Your task to perform on an android device: open app "ZOOM Cloud Meetings" (install if not already installed) and enter user name: "bauxite@icloud.com" and password: "dim" Image 0: 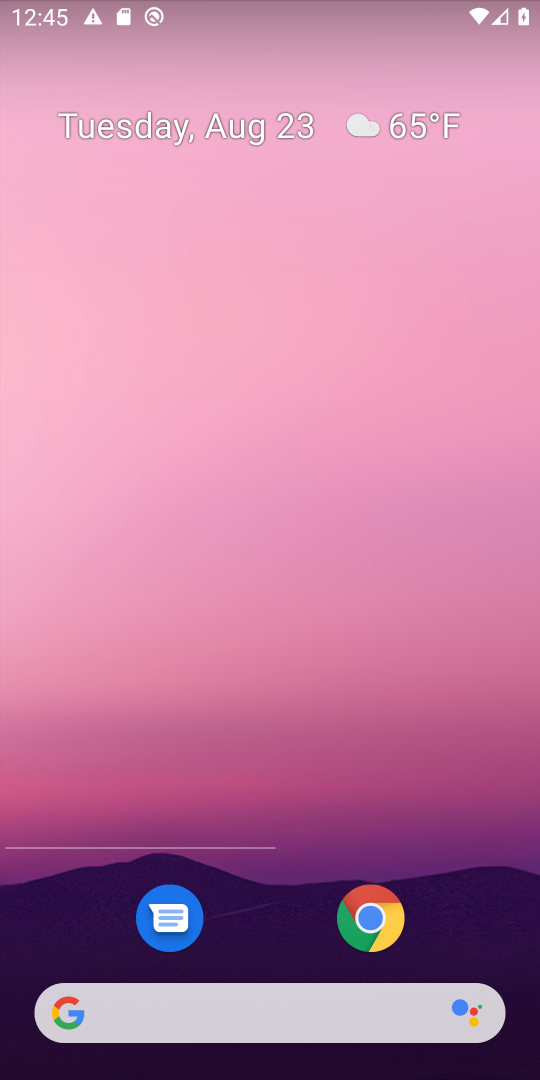
Step 0: press home button
Your task to perform on an android device: open app "ZOOM Cloud Meetings" (install if not already installed) and enter user name: "bauxite@icloud.com" and password: "dim" Image 1: 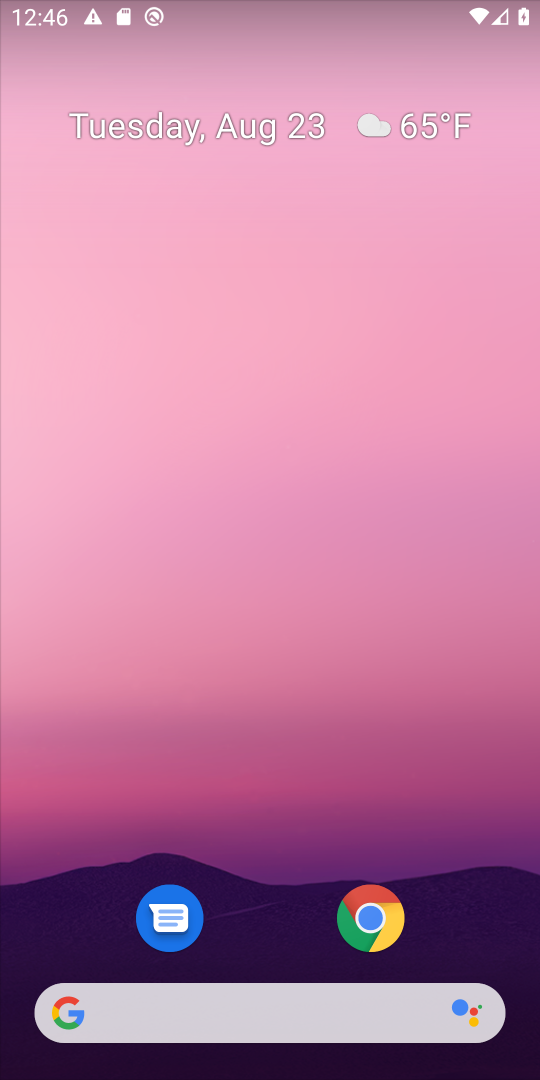
Step 1: drag from (269, 963) to (339, 80)
Your task to perform on an android device: open app "ZOOM Cloud Meetings" (install if not already installed) and enter user name: "bauxite@icloud.com" and password: "dim" Image 2: 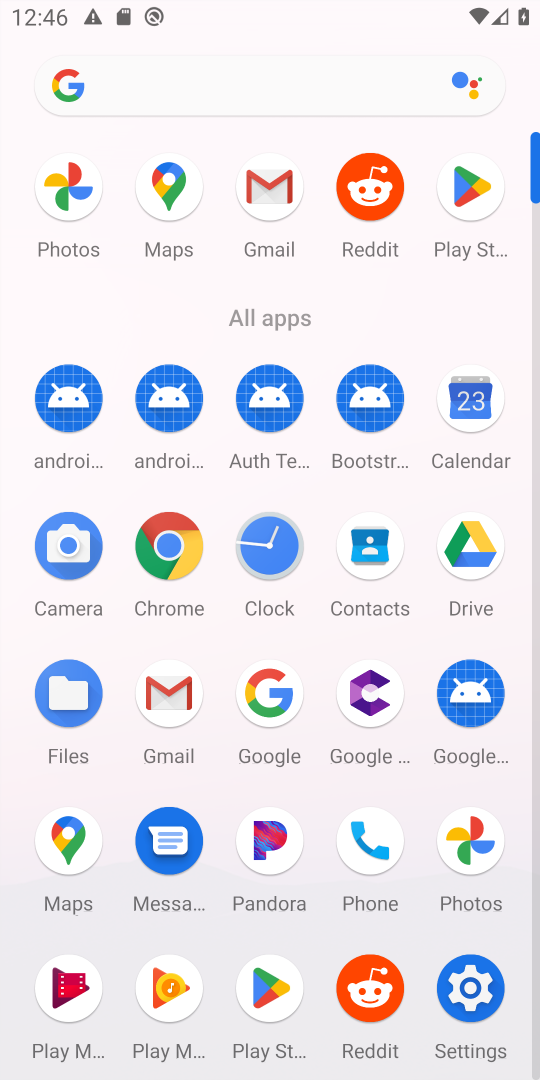
Step 2: click (473, 184)
Your task to perform on an android device: open app "ZOOM Cloud Meetings" (install if not already installed) and enter user name: "bauxite@icloud.com" and password: "dim" Image 3: 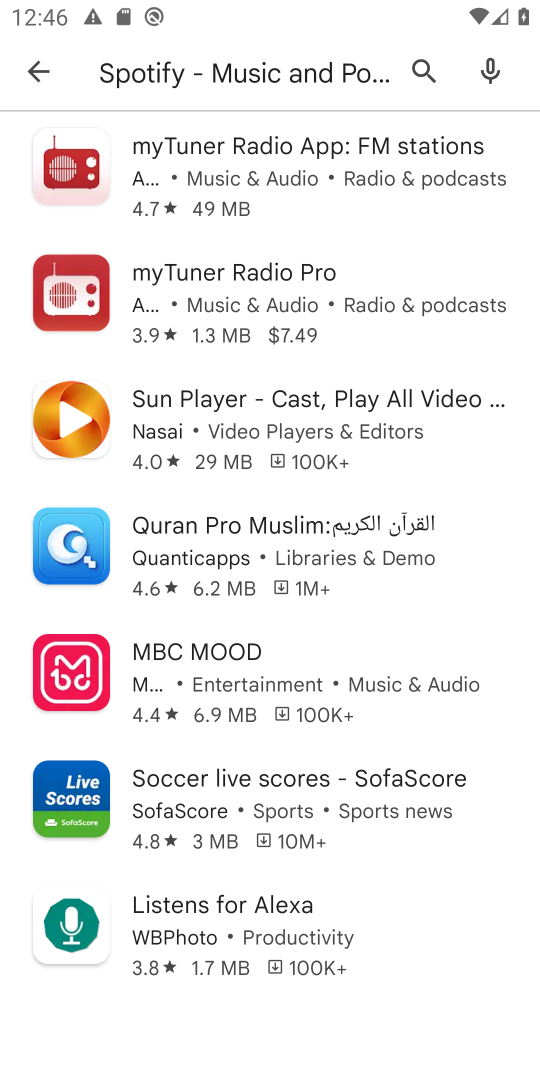
Step 3: click (415, 72)
Your task to perform on an android device: open app "ZOOM Cloud Meetings" (install if not already installed) and enter user name: "bauxite@icloud.com" and password: "dim" Image 4: 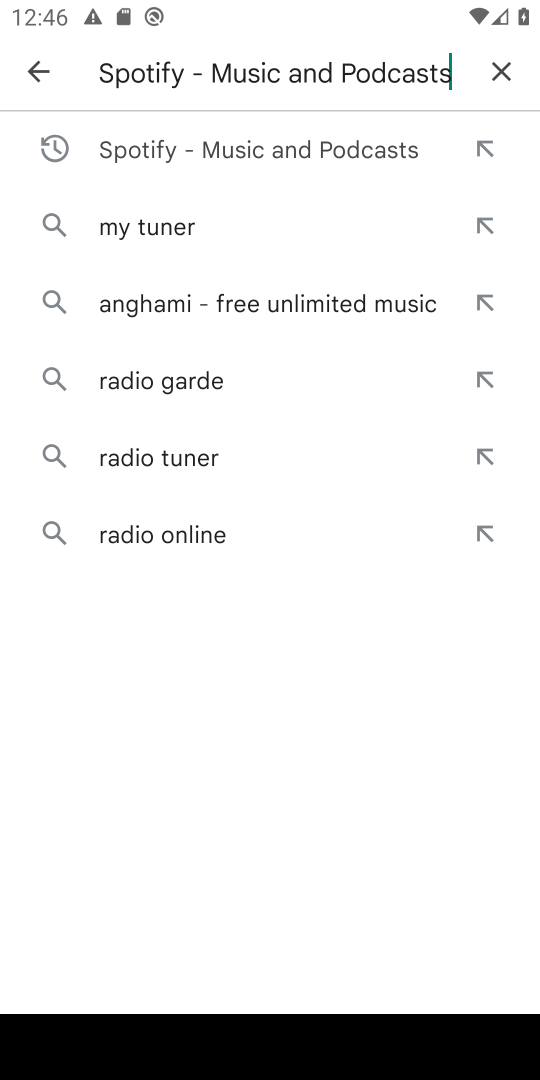
Step 4: click (506, 69)
Your task to perform on an android device: open app "ZOOM Cloud Meetings" (install if not already installed) and enter user name: "bauxite@icloud.com" and password: "dim" Image 5: 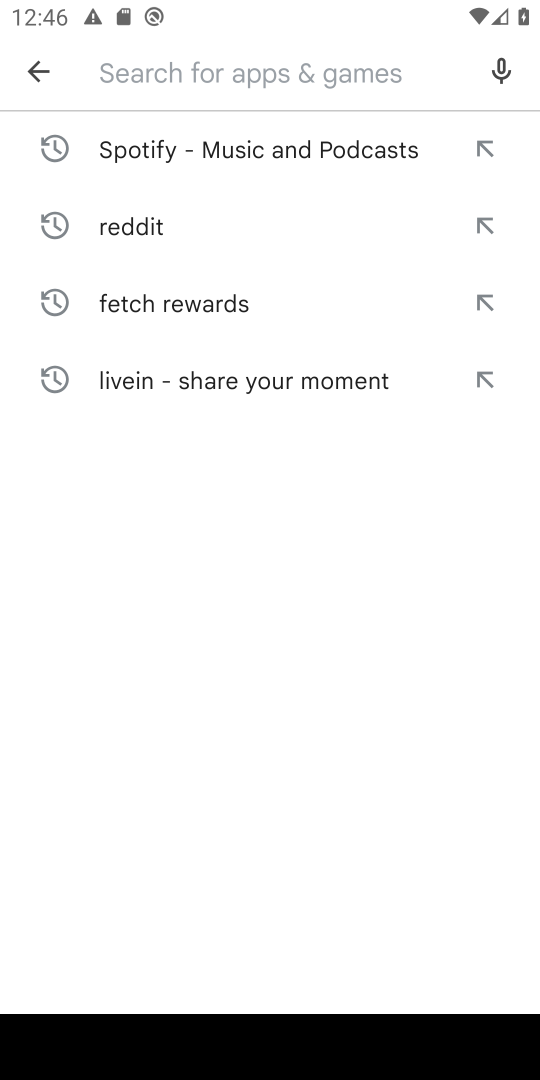
Step 5: type "ZOOM Cloud Meetings"
Your task to perform on an android device: open app "ZOOM Cloud Meetings" (install if not already installed) and enter user name: "bauxite@icloud.com" and password: "dim" Image 6: 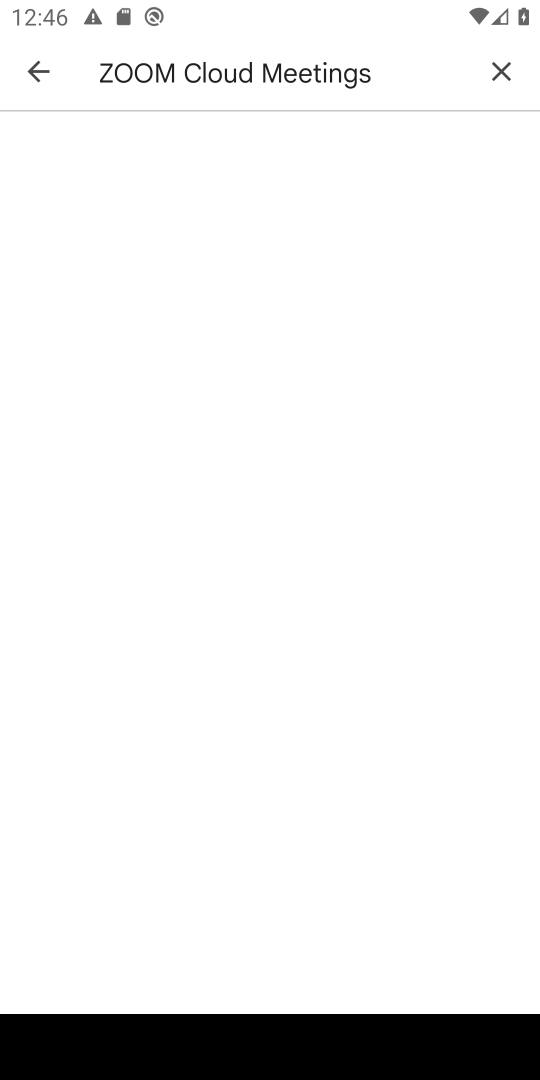
Step 6: click (496, 75)
Your task to perform on an android device: open app "ZOOM Cloud Meetings" (install if not already installed) and enter user name: "bauxite@icloud.com" and password: "dim" Image 7: 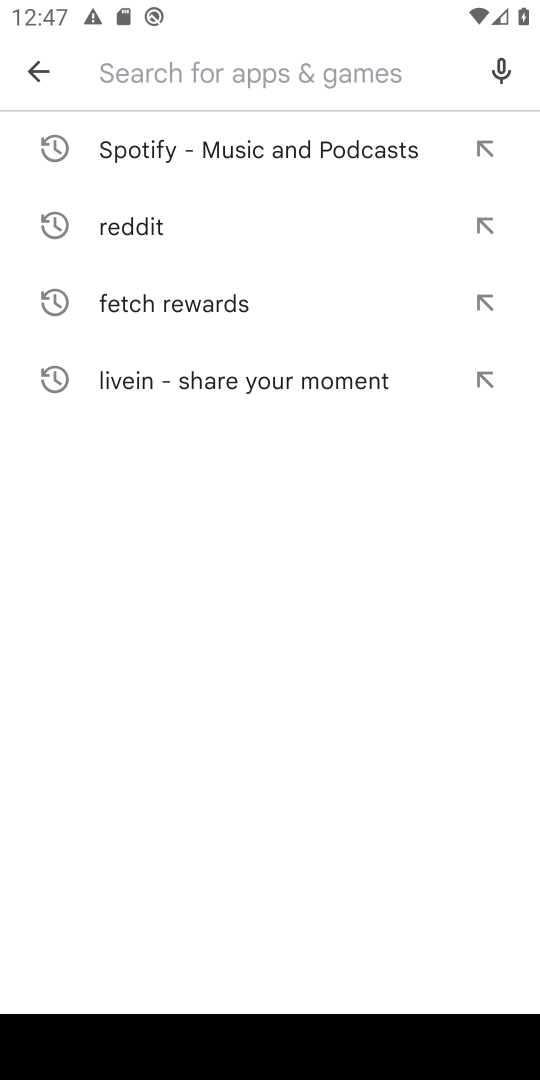
Step 7: type "ZOOM Cloud Meetings"
Your task to perform on an android device: open app "ZOOM Cloud Meetings" (install if not already installed) and enter user name: "bauxite@icloud.com" and password: "dim" Image 8: 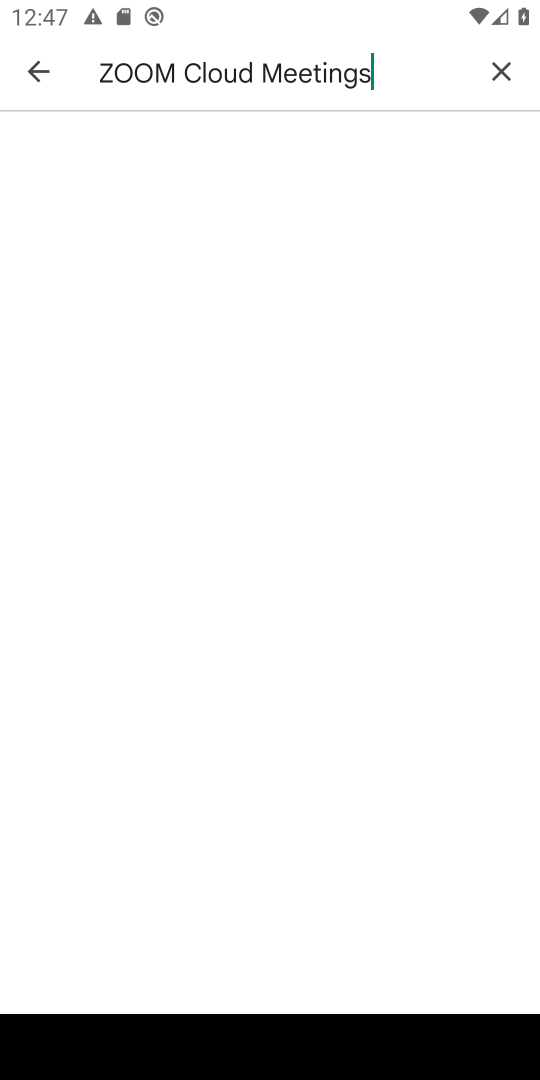
Step 8: task complete